Your task to perform on an android device: turn notification dots on Image 0: 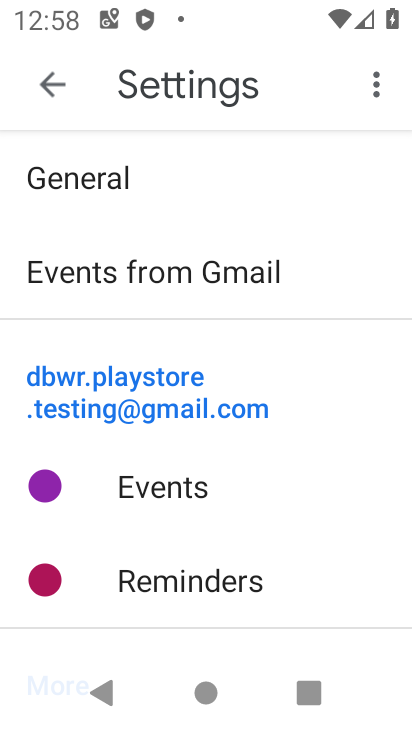
Step 0: press home button
Your task to perform on an android device: turn notification dots on Image 1: 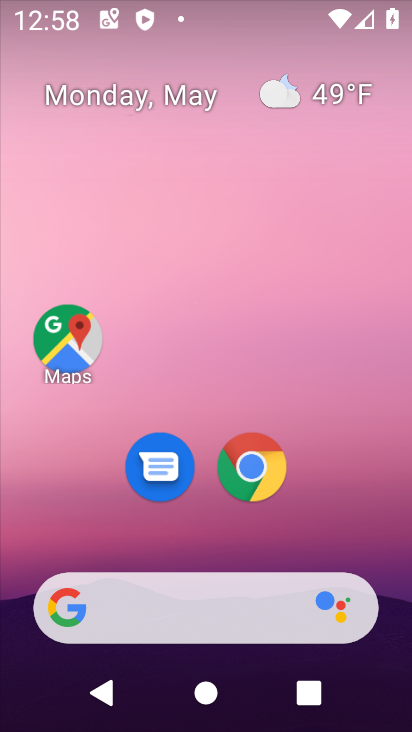
Step 1: drag from (352, 514) to (346, 159)
Your task to perform on an android device: turn notification dots on Image 2: 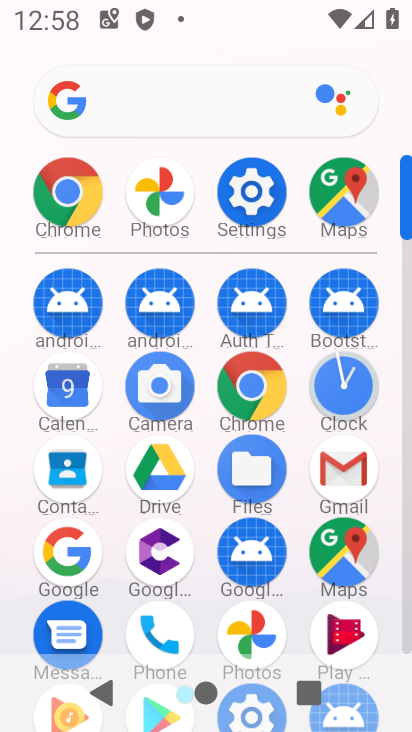
Step 2: click (228, 224)
Your task to perform on an android device: turn notification dots on Image 3: 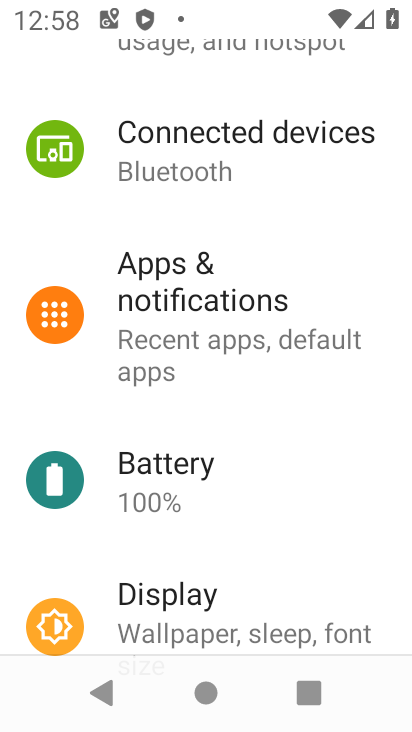
Step 3: click (227, 280)
Your task to perform on an android device: turn notification dots on Image 4: 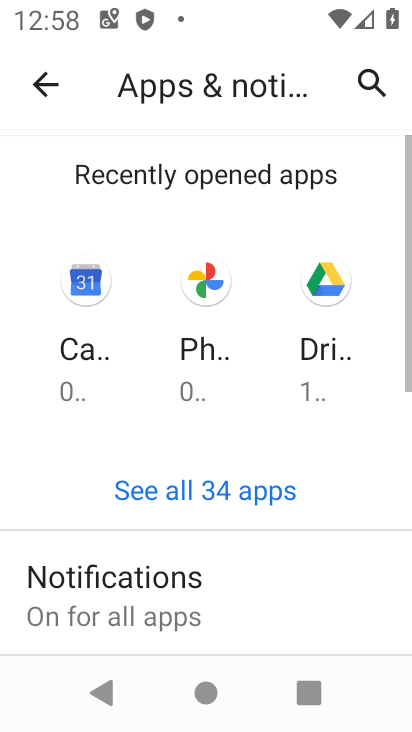
Step 4: click (150, 594)
Your task to perform on an android device: turn notification dots on Image 5: 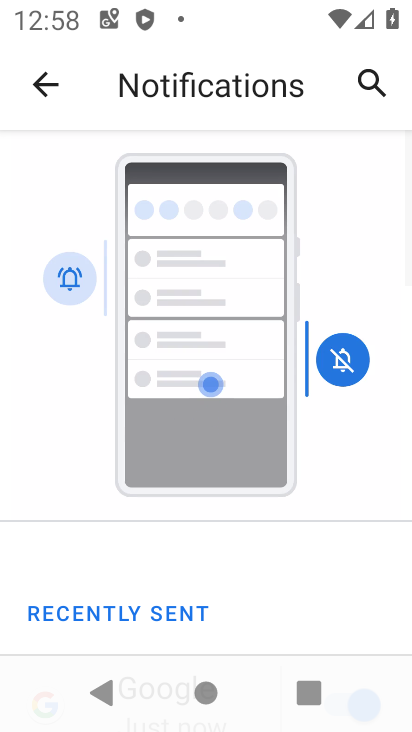
Step 5: drag from (244, 591) to (350, 203)
Your task to perform on an android device: turn notification dots on Image 6: 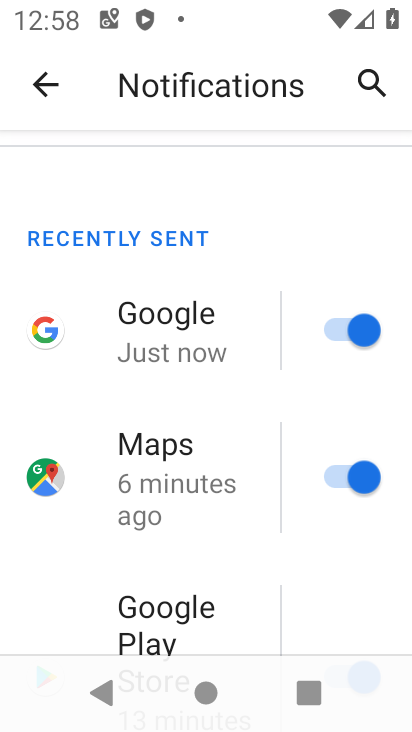
Step 6: drag from (203, 569) to (211, 290)
Your task to perform on an android device: turn notification dots on Image 7: 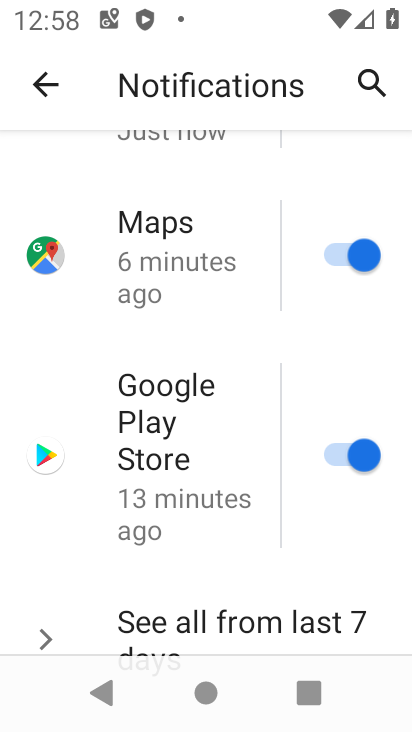
Step 7: drag from (250, 564) to (267, 137)
Your task to perform on an android device: turn notification dots on Image 8: 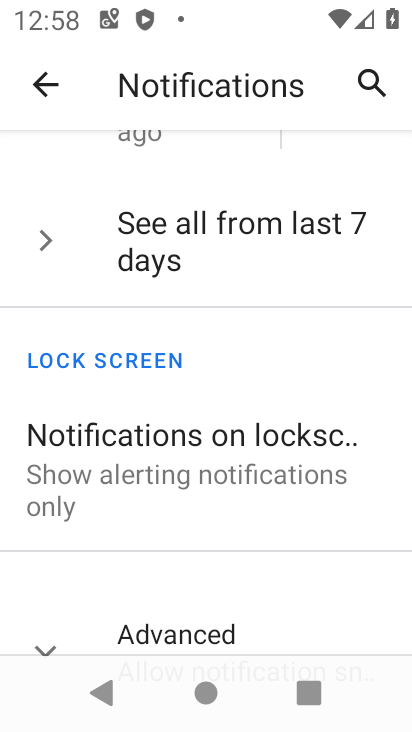
Step 8: drag from (247, 582) to (234, 263)
Your task to perform on an android device: turn notification dots on Image 9: 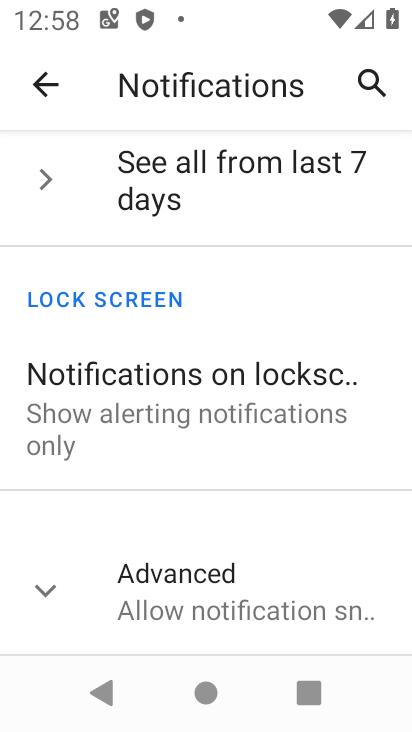
Step 9: click (193, 621)
Your task to perform on an android device: turn notification dots on Image 10: 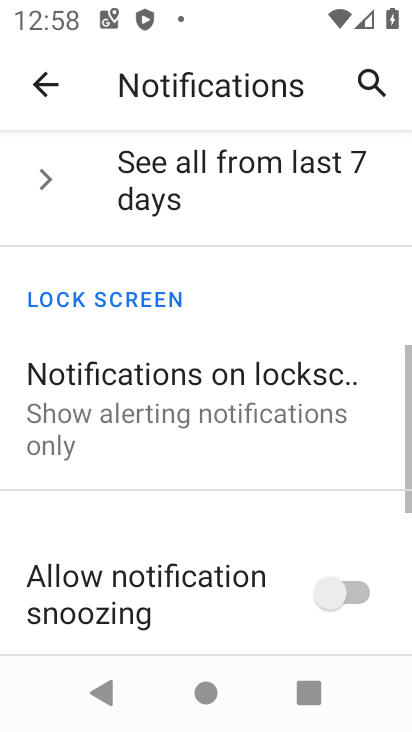
Step 10: task complete